Your task to perform on an android device: Go to notification settings Image 0: 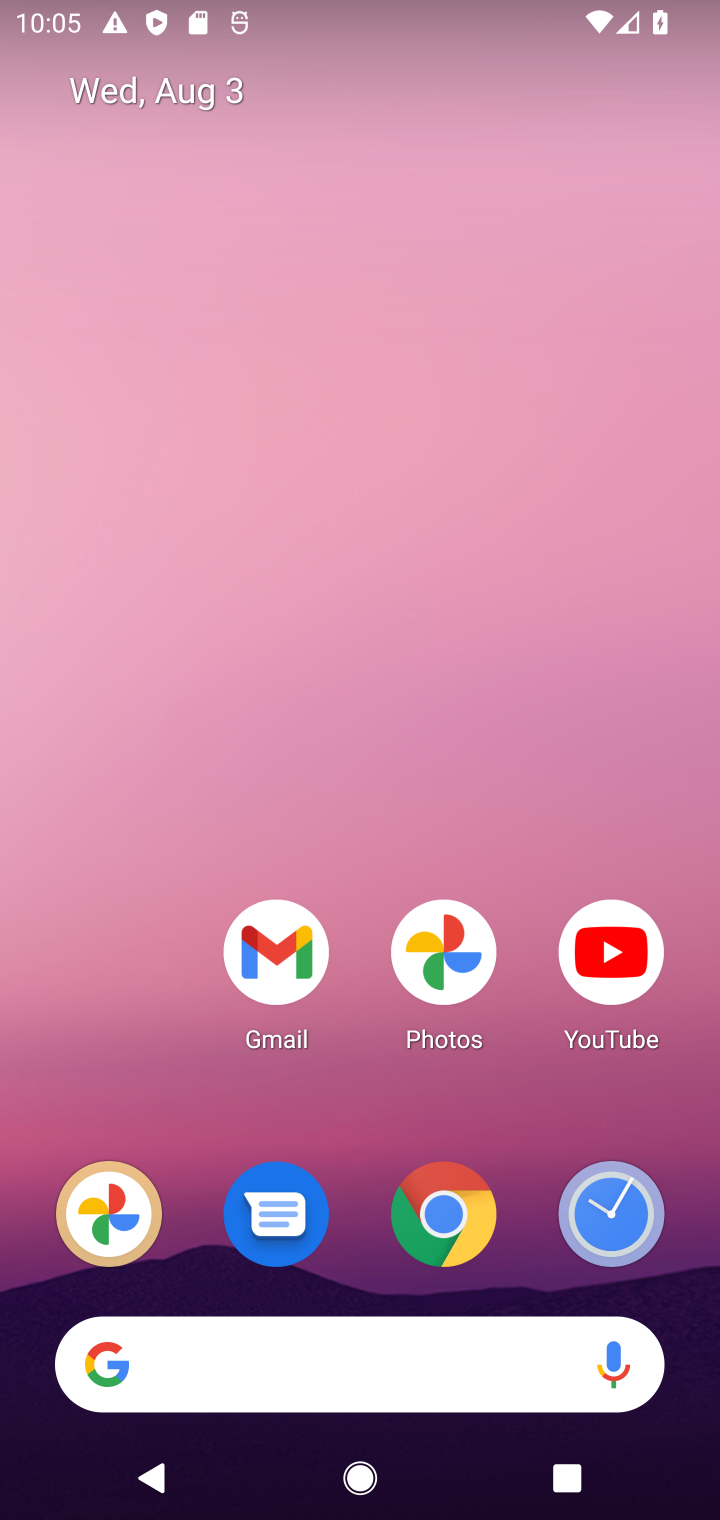
Step 0: press home button
Your task to perform on an android device: Go to notification settings Image 1: 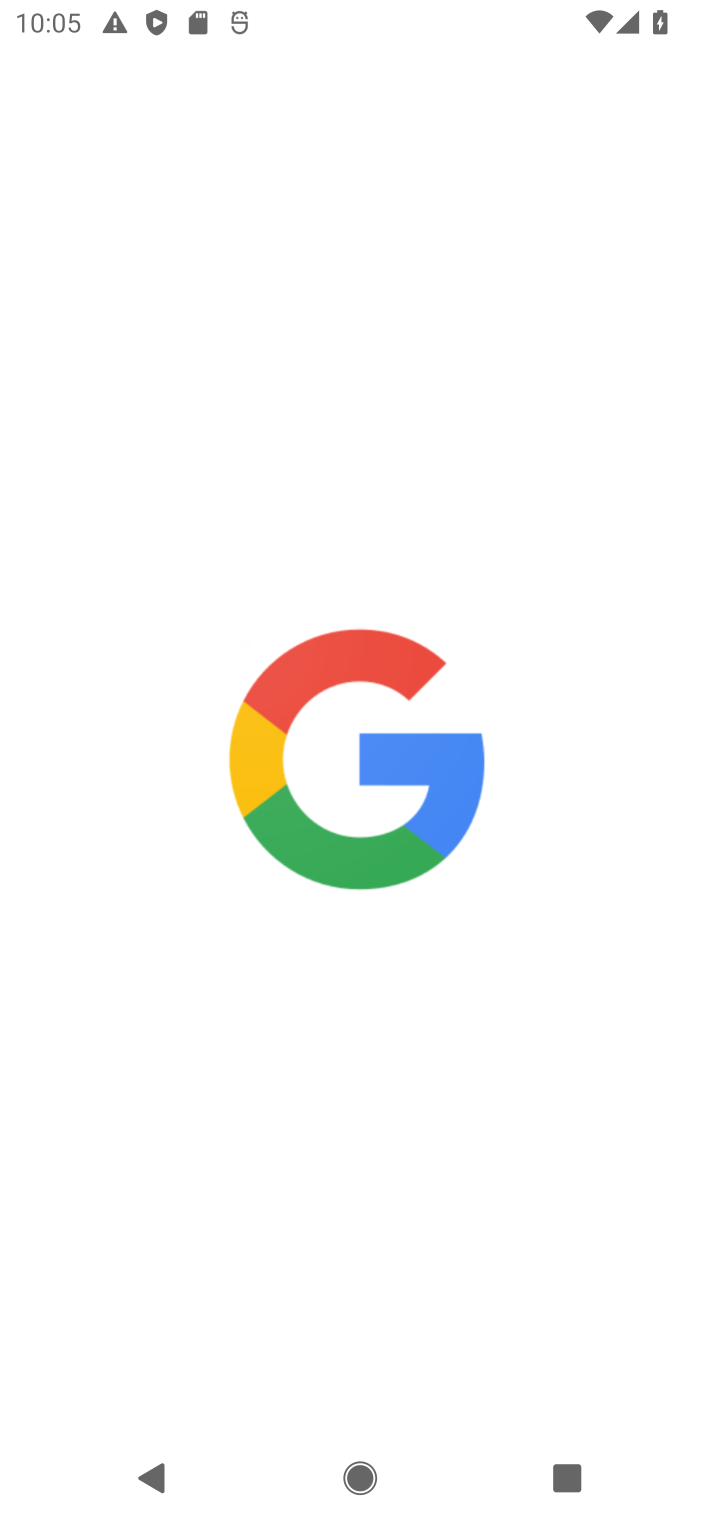
Step 1: press home button
Your task to perform on an android device: Go to notification settings Image 2: 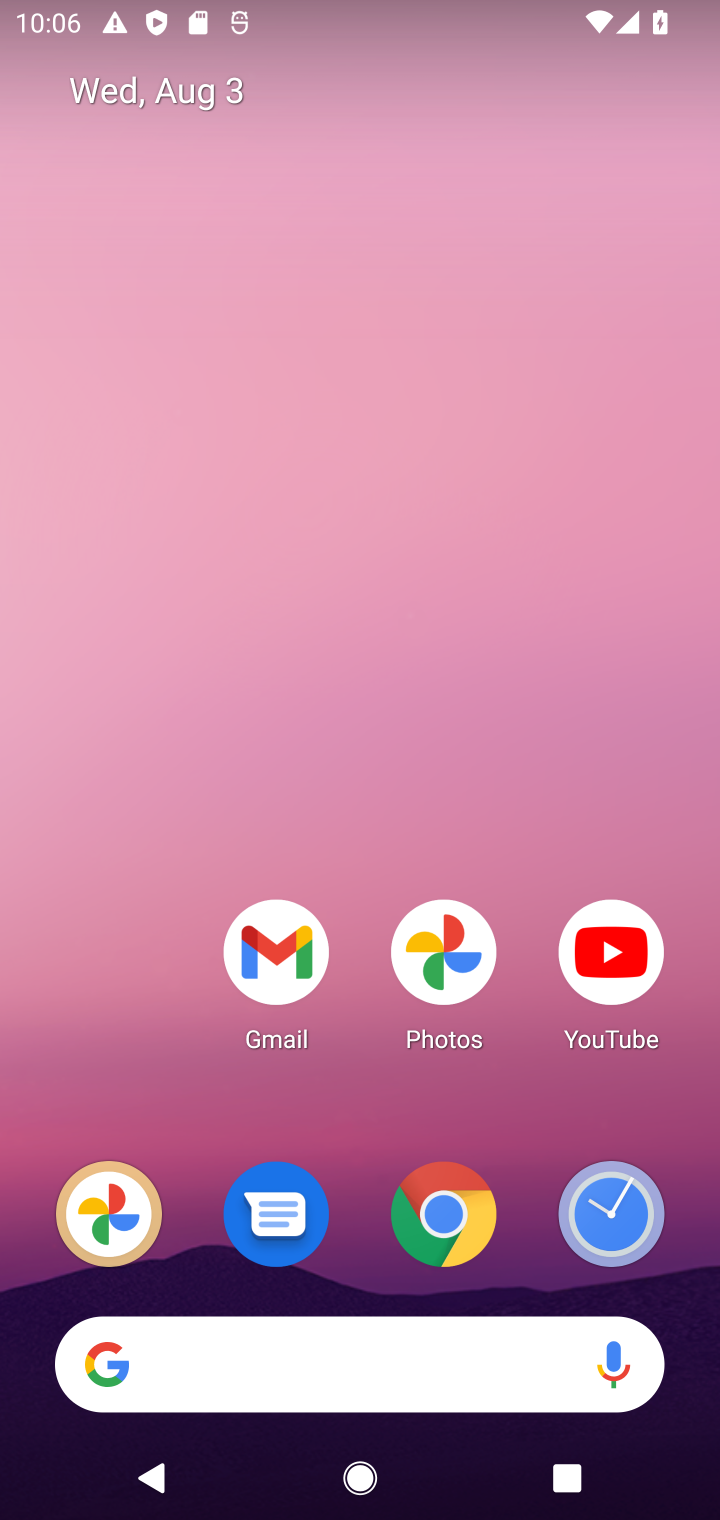
Step 2: drag from (379, 1318) to (487, 131)
Your task to perform on an android device: Go to notification settings Image 3: 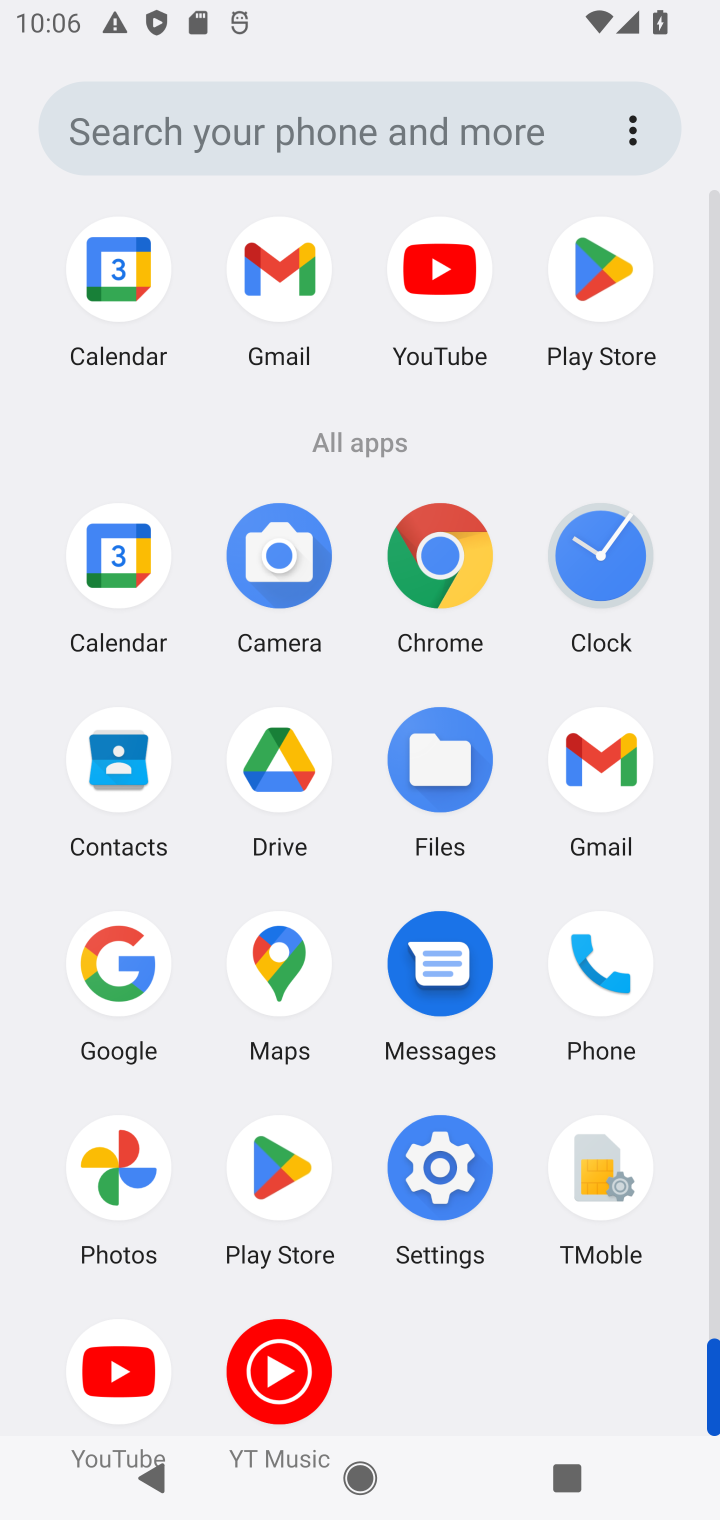
Step 3: click (465, 1184)
Your task to perform on an android device: Go to notification settings Image 4: 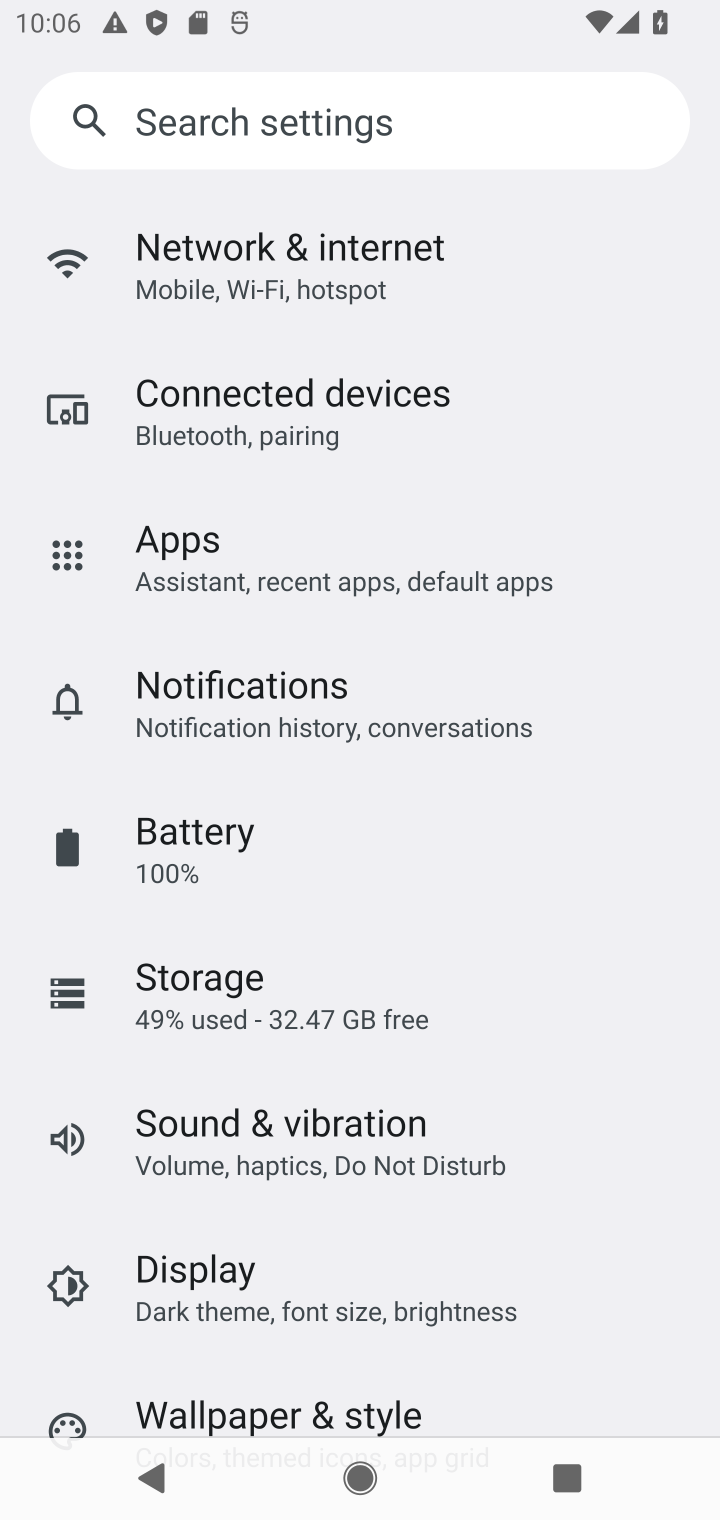
Step 4: click (201, 663)
Your task to perform on an android device: Go to notification settings Image 5: 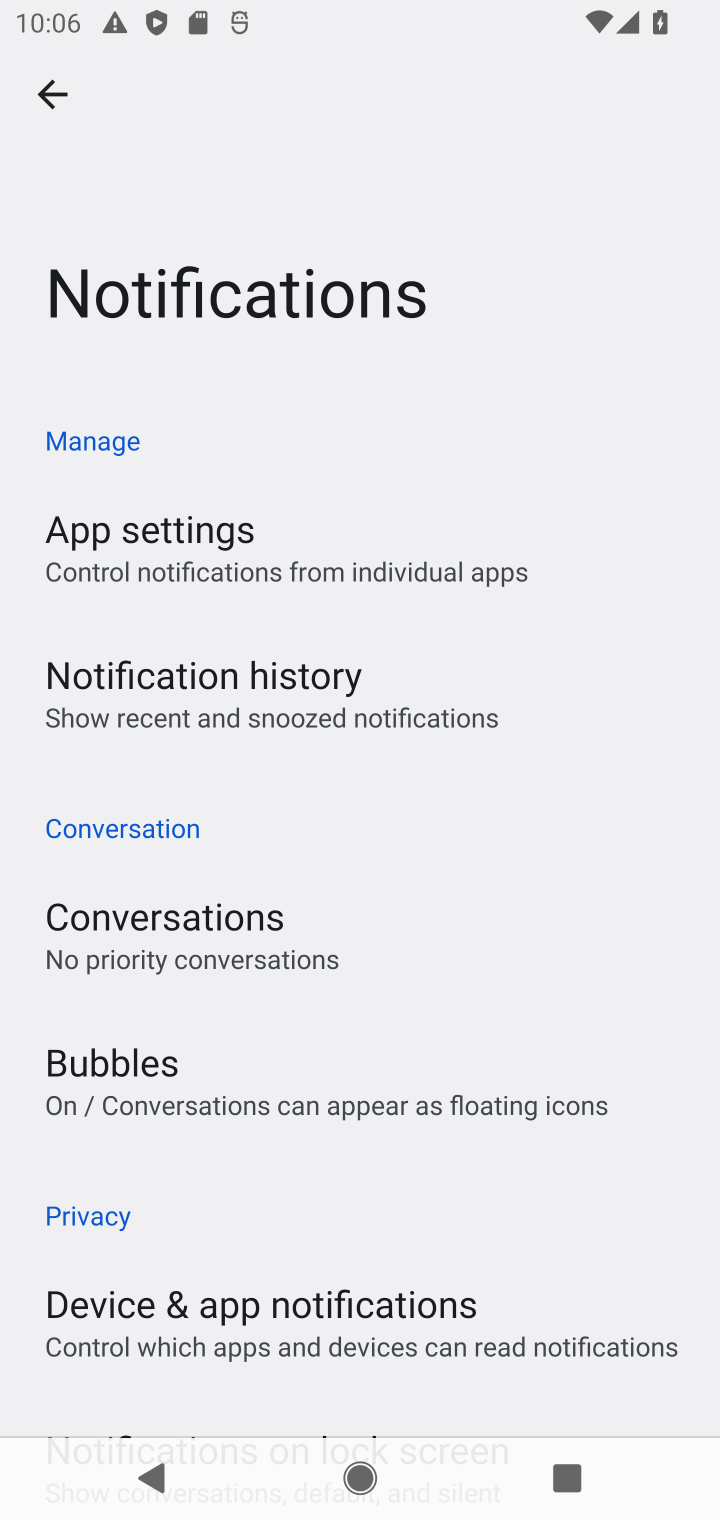
Step 5: task complete